Your task to perform on an android device: manage bookmarks in the chrome app Image 0: 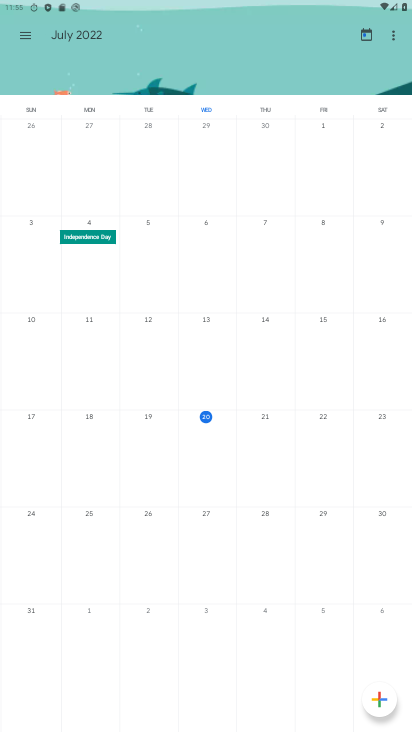
Step 0: press home button
Your task to perform on an android device: manage bookmarks in the chrome app Image 1: 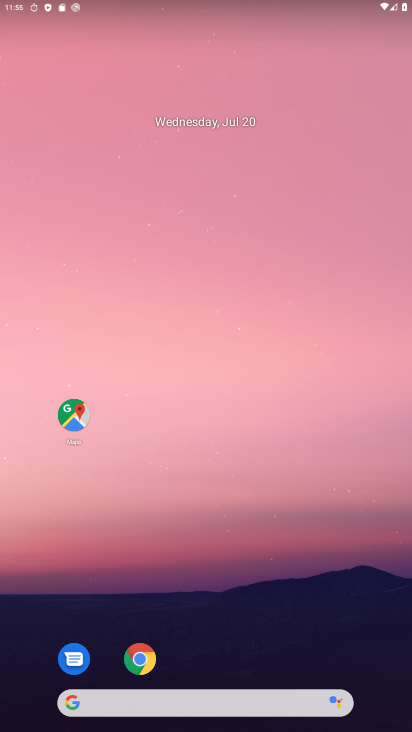
Step 1: click (283, 78)
Your task to perform on an android device: manage bookmarks in the chrome app Image 2: 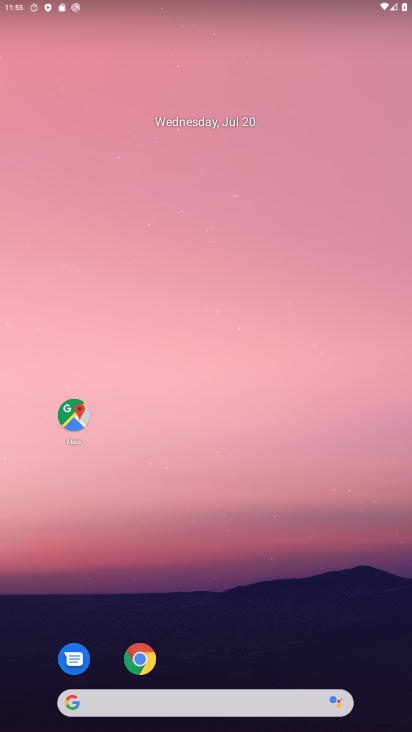
Step 2: drag from (335, 639) to (328, 194)
Your task to perform on an android device: manage bookmarks in the chrome app Image 3: 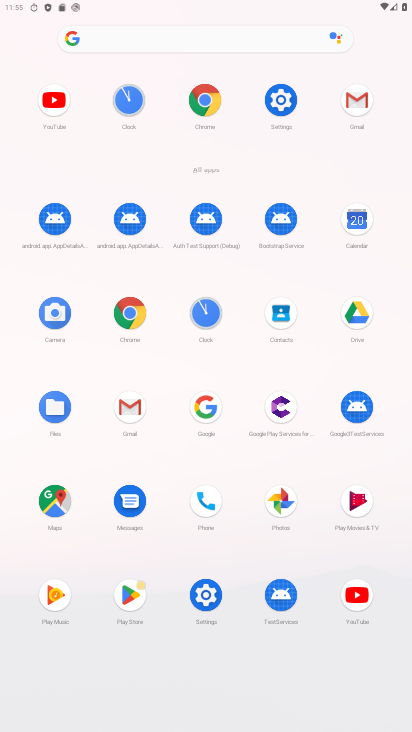
Step 3: click (129, 310)
Your task to perform on an android device: manage bookmarks in the chrome app Image 4: 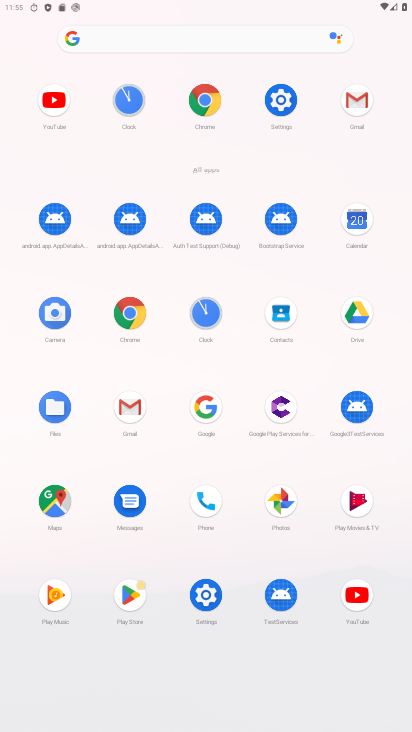
Step 4: click (127, 313)
Your task to perform on an android device: manage bookmarks in the chrome app Image 5: 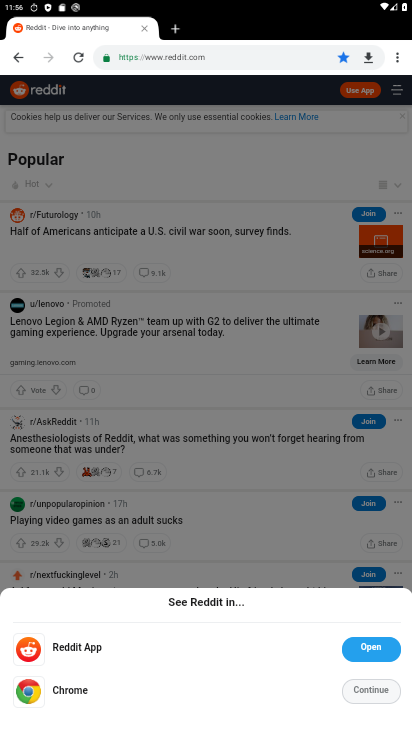
Step 5: drag from (399, 51) to (294, 114)
Your task to perform on an android device: manage bookmarks in the chrome app Image 6: 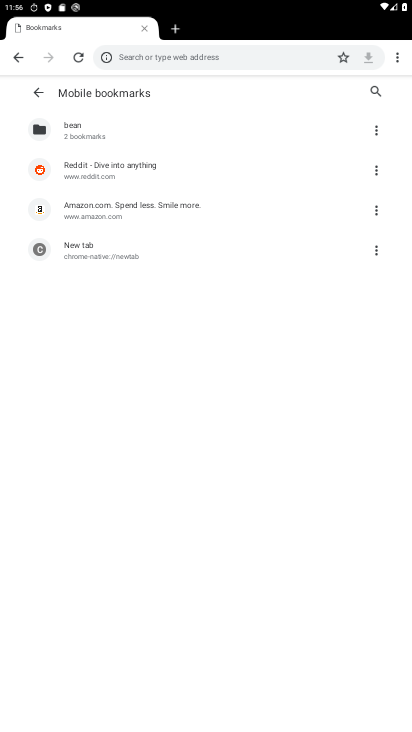
Step 6: click (377, 208)
Your task to perform on an android device: manage bookmarks in the chrome app Image 7: 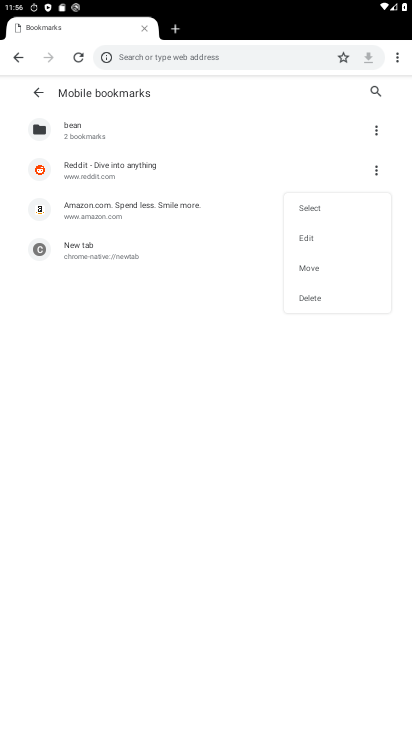
Step 7: click (310, 244)
Your task to perform on an android device: manage bookmarks in the chrome app Image 8: 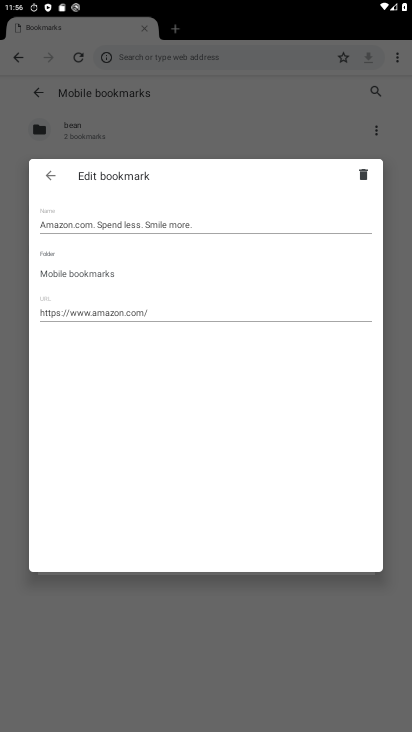
Step 8: drag from (204, 217) to (130, 217)
Your task to perform on an android device: manage bookmarks in the chrome app Image 9: 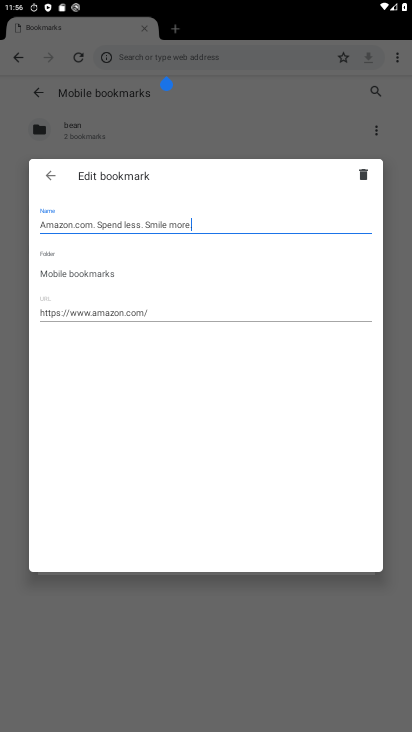
Step 9: click (130, 218)
Your task to perform on an android device: manage bookmarks in the chrome app Image 10: 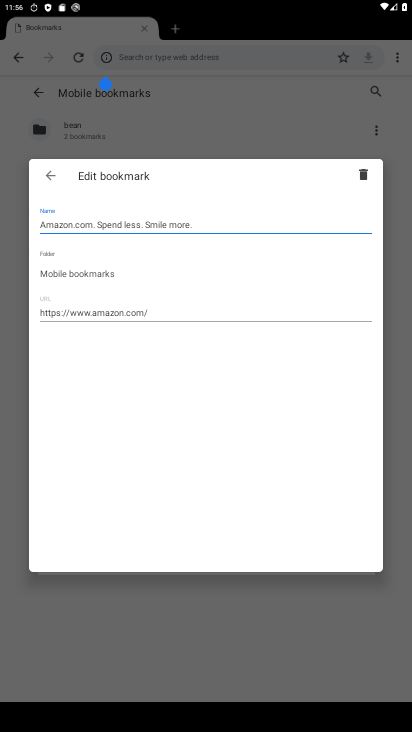
Step 10: click (195, 219)
Your task to perform on an android device: manage bookmarks in the chrome app Image 11: 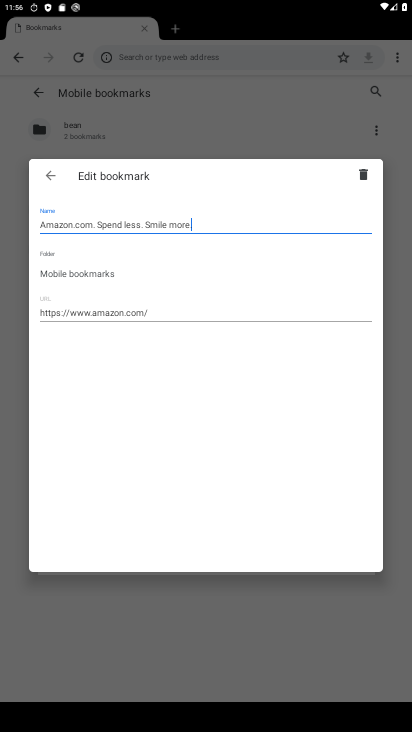
Step 11: click (176, 227)
Your task to perform on an android device: manage bookmarks in the chrome app Image 12: 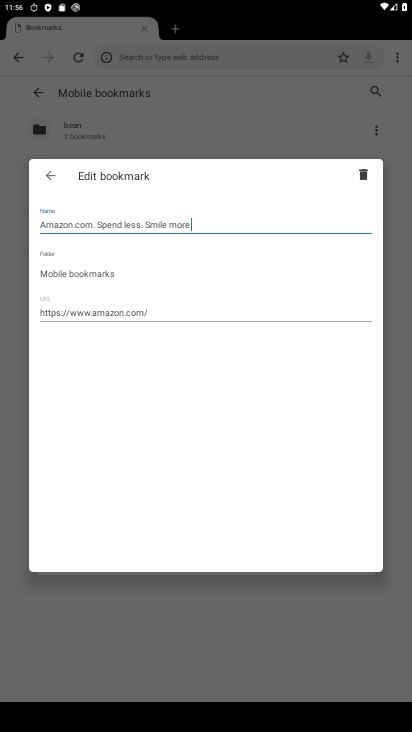
Step 12: click (175, 222)
Your task to perform on an android device: manage bookmarks in the chrome app Image 13: 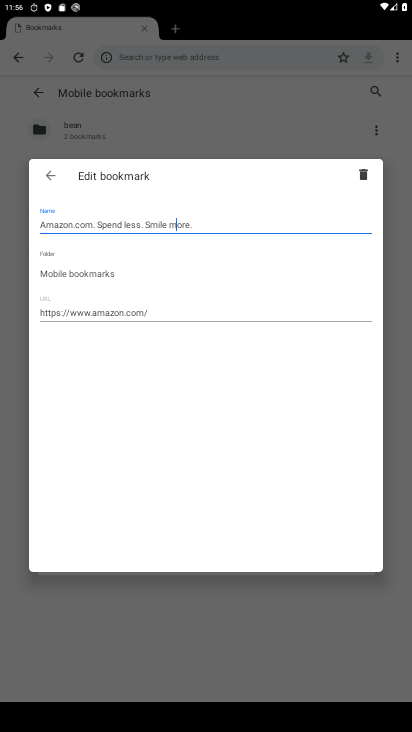
Step 13: click (175, 222)
Your task to perform on an android device: manage bookmarks in the chrome app Image 14: 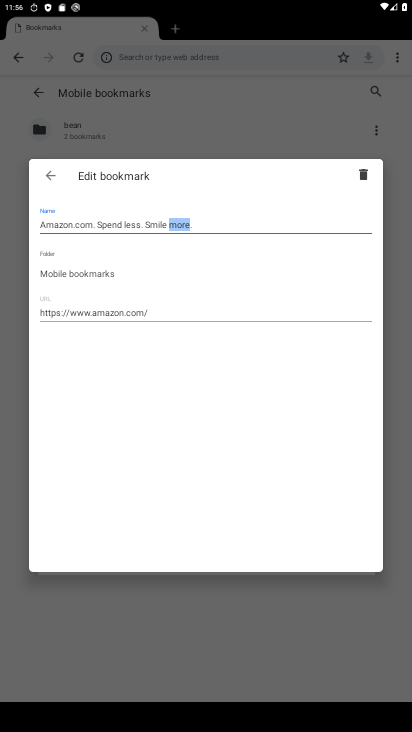
Step 14: click (175, 222)
Your task to perform on an android device: manage bookmarks in the chrome app Image 15: 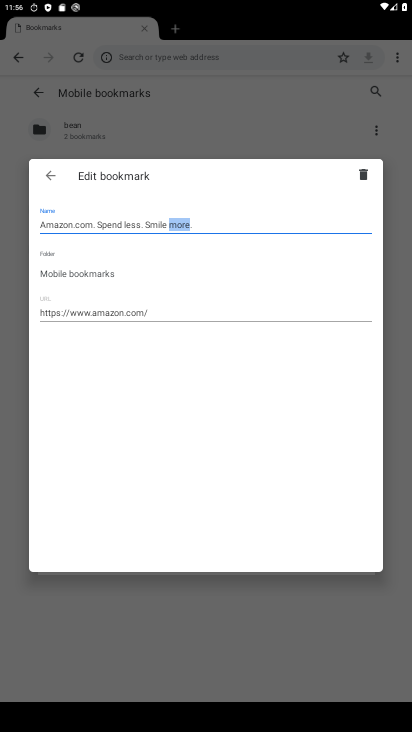
Step 15: click (175, 222)
Your task to perform on an android device: manage bookmarks in the chrome app Image 16: 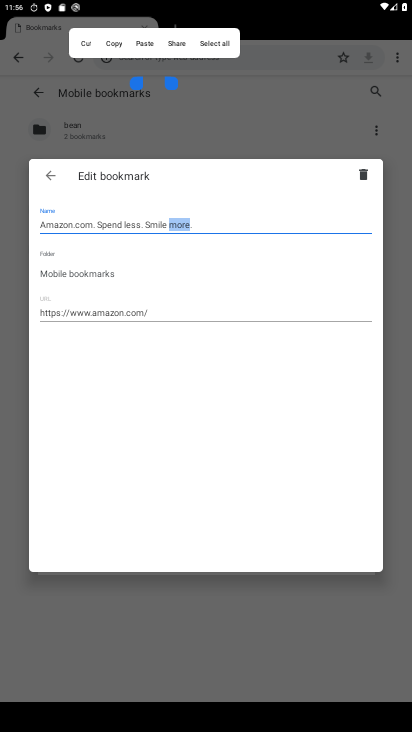
Step 16: click (175, 222)
Your task to perform on an android device: manage bookmarks in the chrome app Image 17: 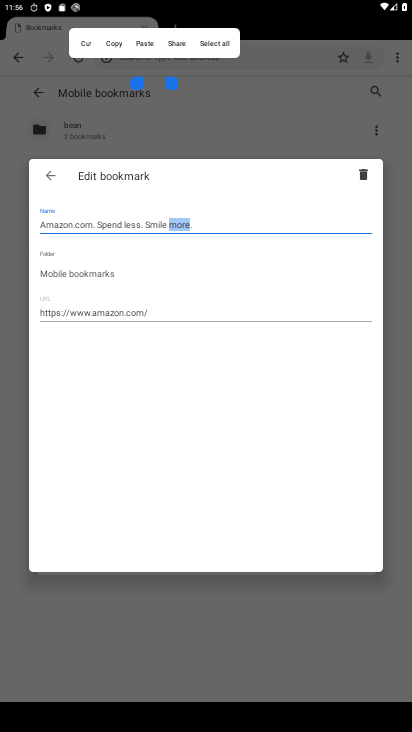
Step 17: press back button
Your task to perform on an android device: manage bookmarks in the chrome app Image 18: 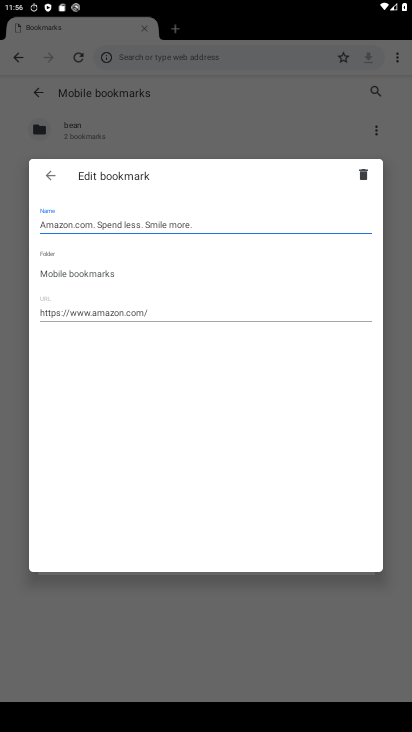
Step 18: click (233, 222)
Your task to perform on an android device: manage bookmarks in the chrome app Image 19: 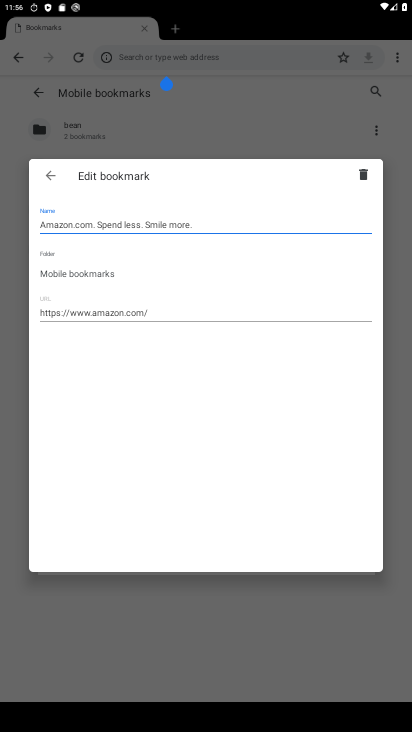
Step 19: type "kk"
Your task to perform on an android device: manage bookmarks in the chrome app Image 20: 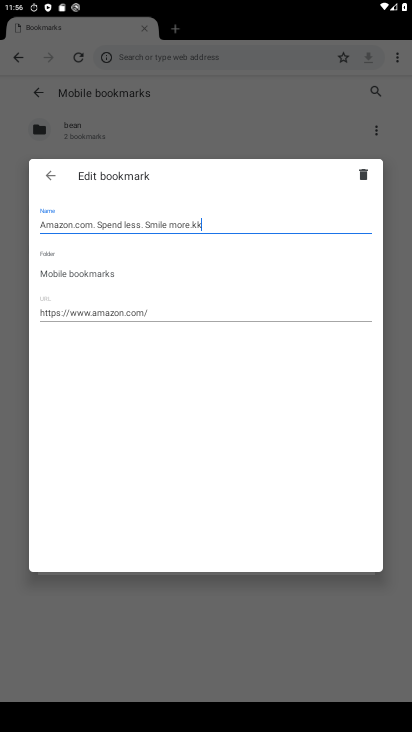
Step 20: type ""
Your task to perform on an android device: manage bookmarks in the chrome app Image 21: 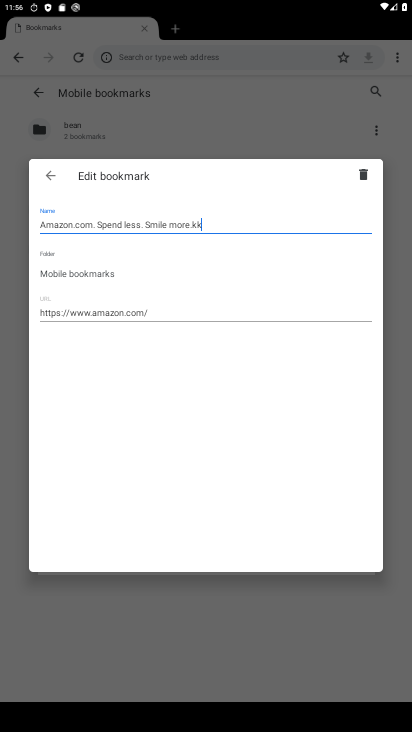
Step 21: click (314, 647)
Your task to perform on an android device: manage bookmarks in the chrome app Image 22: 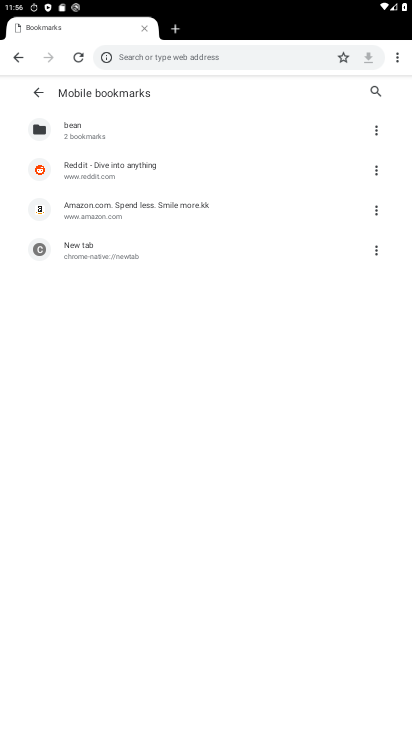
Step 22: task complete